Your task to perform on an android device: open chrome and create a bookmark for the current page Image 0: 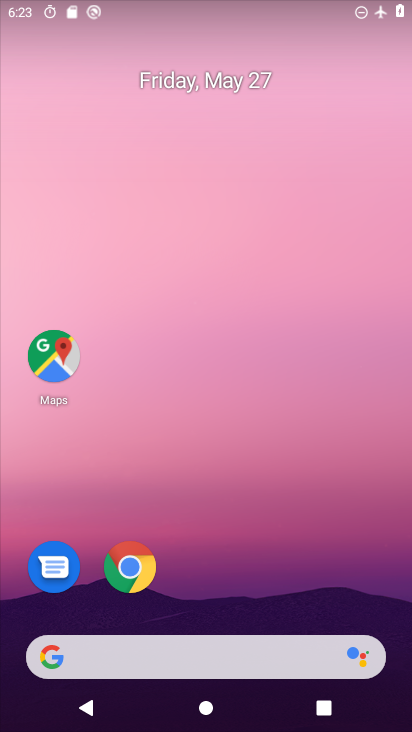
Step 0: click (106, 570)
Your task to perform on an android device: open chrome and create a bookmark for the current page Image 1: 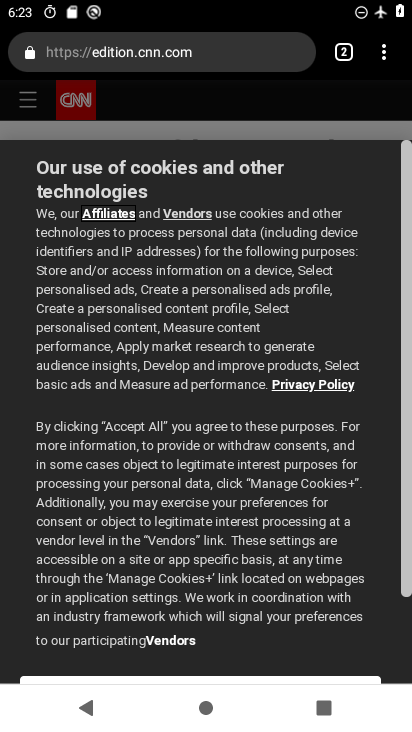
Step 1: click (383, 58)
Your task to perform on an android device: open chrome and create a bookmark for the current page Image 2: 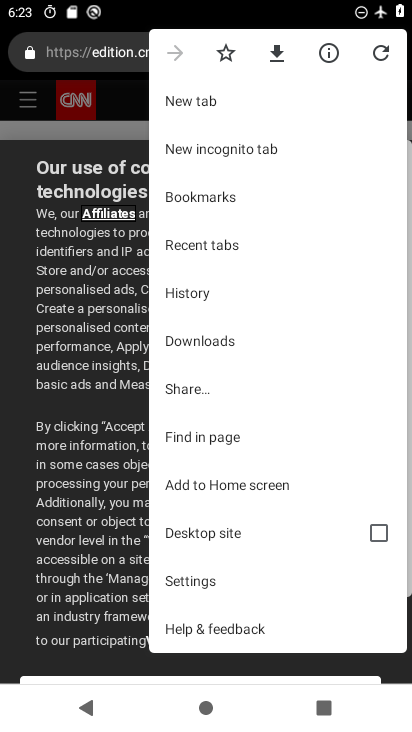
Step 2: click (225, 56)
Your task to perform on an android device: open chrome and create a bookmark for the current page Image 3: 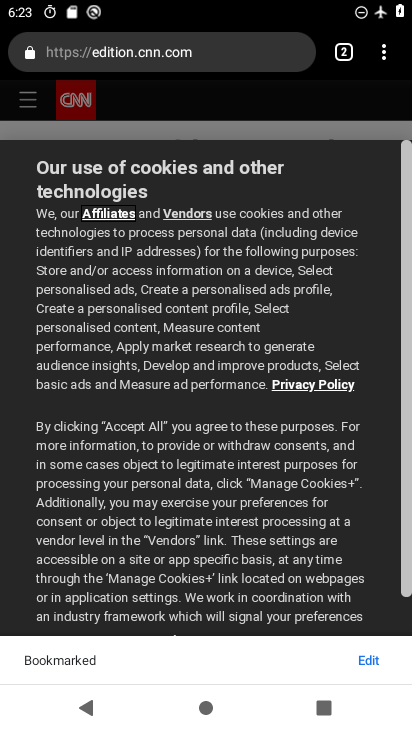
Step 3: task complete